Your task to perform on an android device: Open sound settings Image 0: 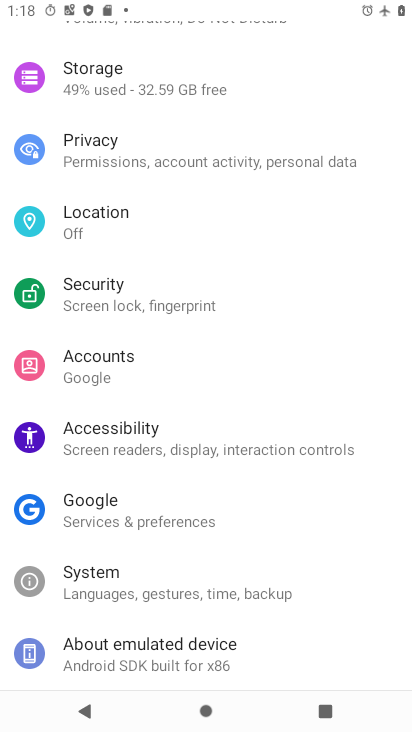
Step 0: drag from (238, 185) to (243, 658)
Your task to perform on an android device: Open sound settings Image 1: 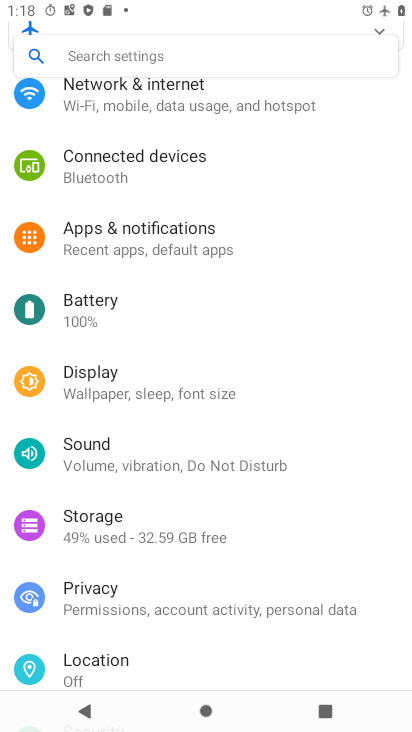
Step 1: click (117, 432)
Your task to perform on an android device: Open sound settings Image 2: 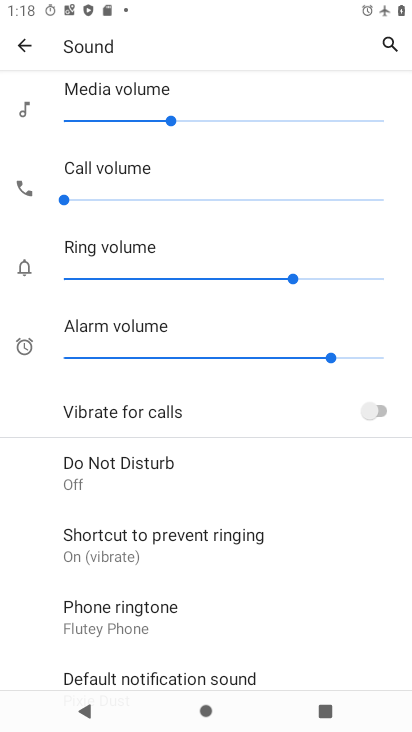
Step 2: task complete